Your task to perform on an android device: Search for the best rated wireless headphones on Amazon. Image 0: 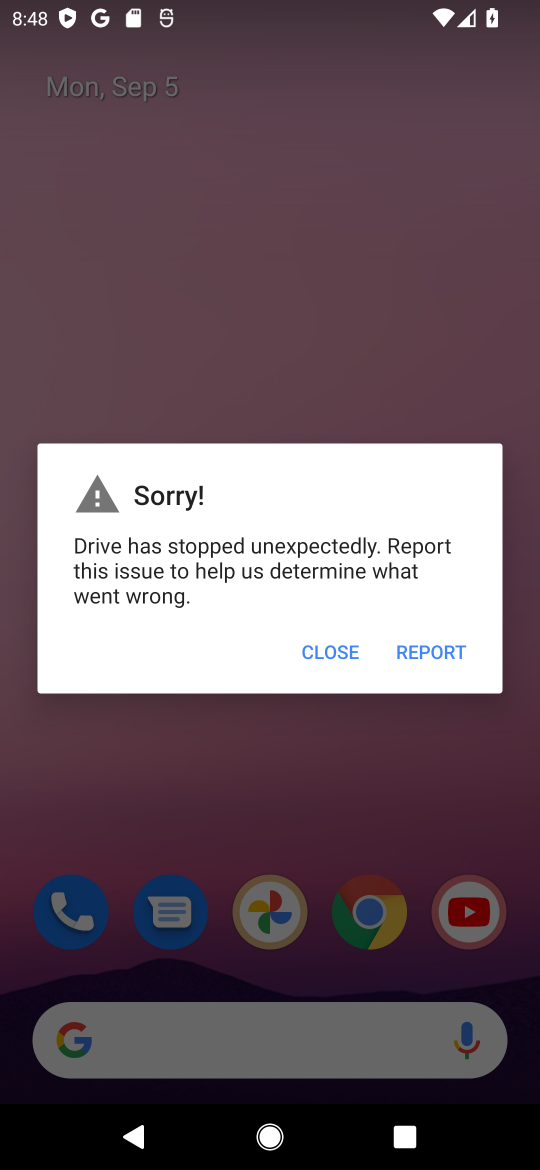
Step 0: press home button
Your task to perform on an android device: Search for the best rated wireless headphones on Amazon. Image 1: 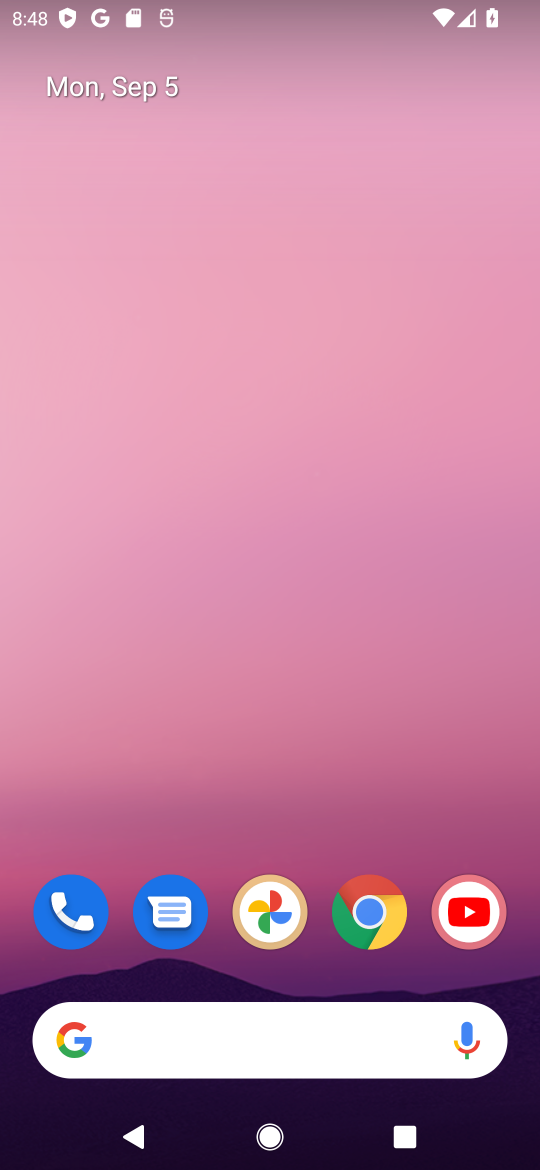
Step 1: click (377, 933)
Your task to perform on an android device: Search for the best rated wireless headphones on Amazon. Image 2: 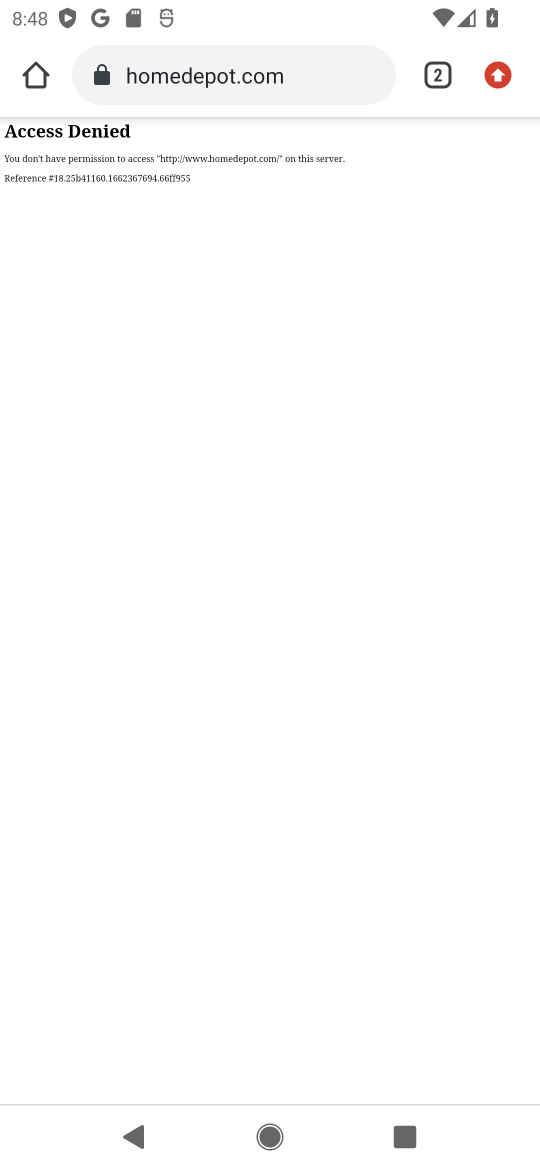
Step 2: click (430, 75)
Your task to perform on an android device: Search for the best rated wireless headphones on Amazon. Image 3: 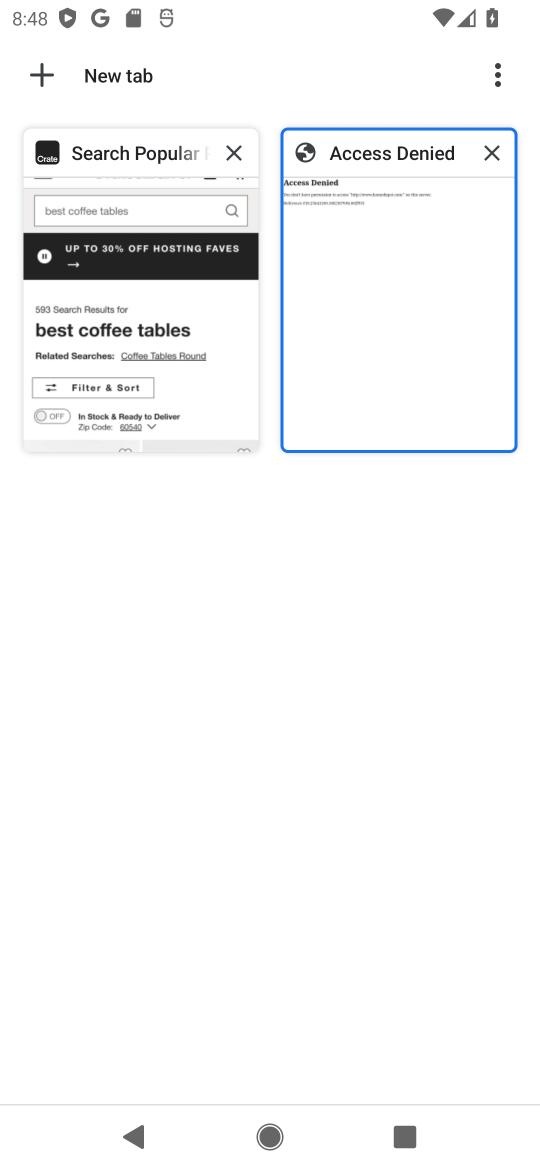
Step 3: click (237, 154)
Your task to perform on an android device: Search for the best rated wireless headphones on Amazon. Image 4: 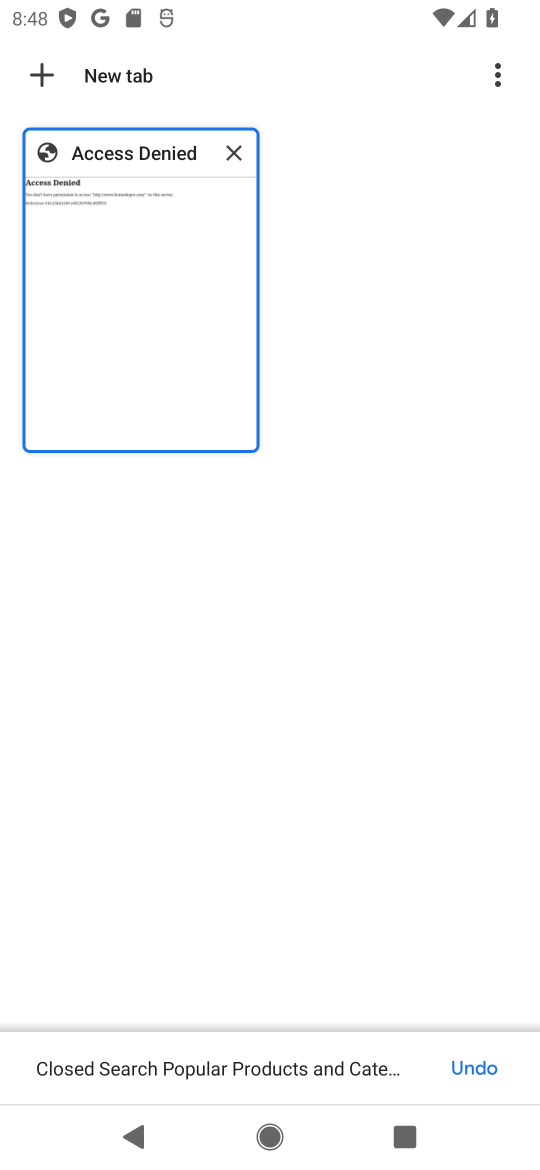
Step 4: click (237, 154)
Your task to perform on an android device: Search for the best rated wireless headphones on Amazon. Image 5: 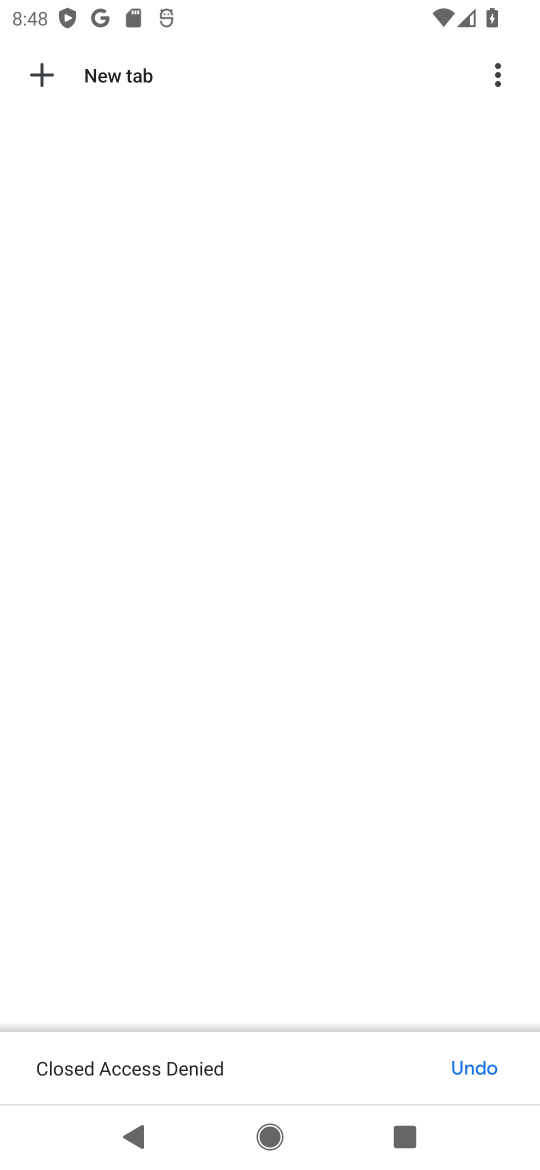
Step 5: click (41, 78)
Your task to perform on an android device: Search for the best rated wireless headphones on Amazon. Image 6: 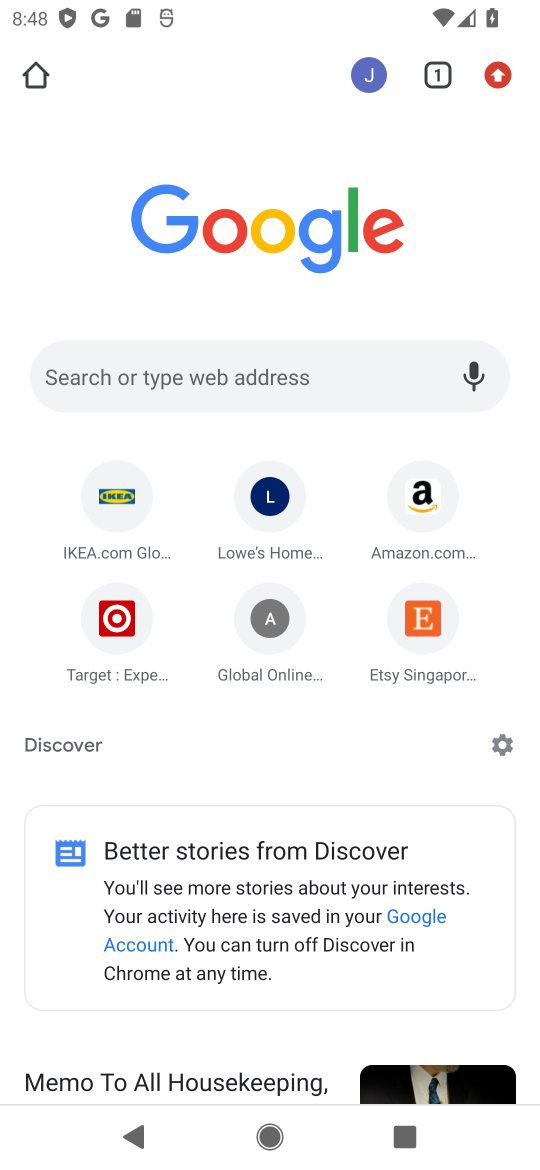
Step 6: click (200, 370)
Your task to perform on an android device: Search for the best rated wireless headphones on Amazon. Image 7: 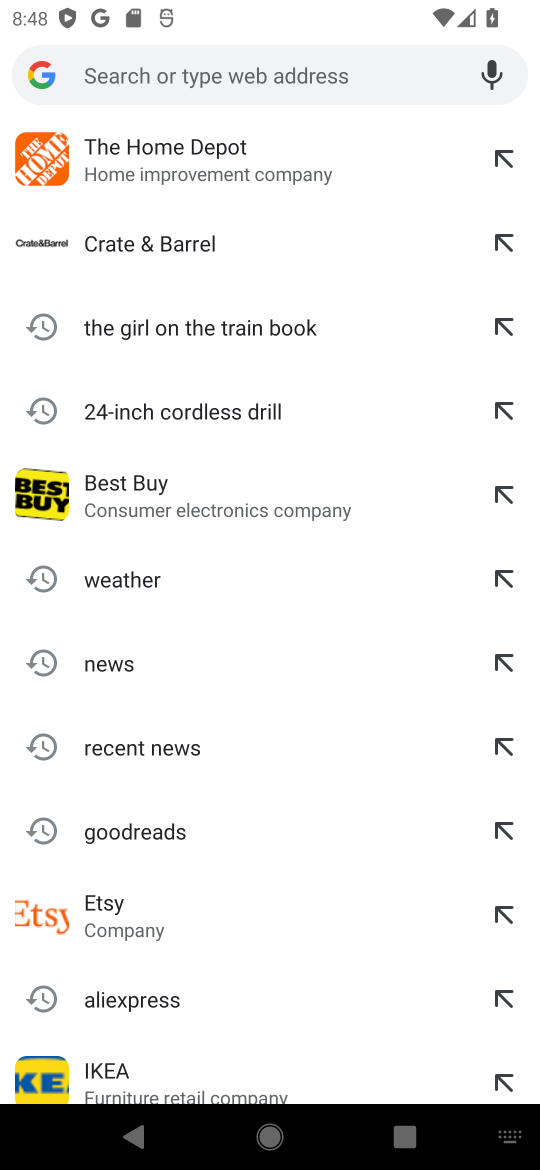
Step 7: type "amazon"
Your task to perform on an android device: Search for the best rated wireless headphones on Amazon. Image 8: 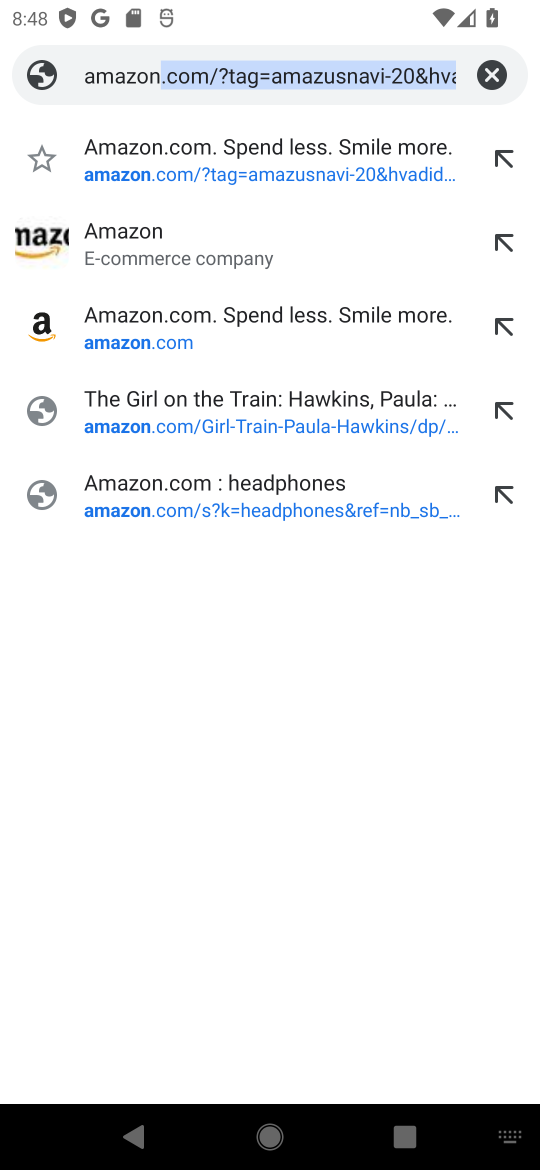
Step 8: press enter
Your task to perform on an android device: Search for the best rated wireless headphones on Amazon. Image 9: 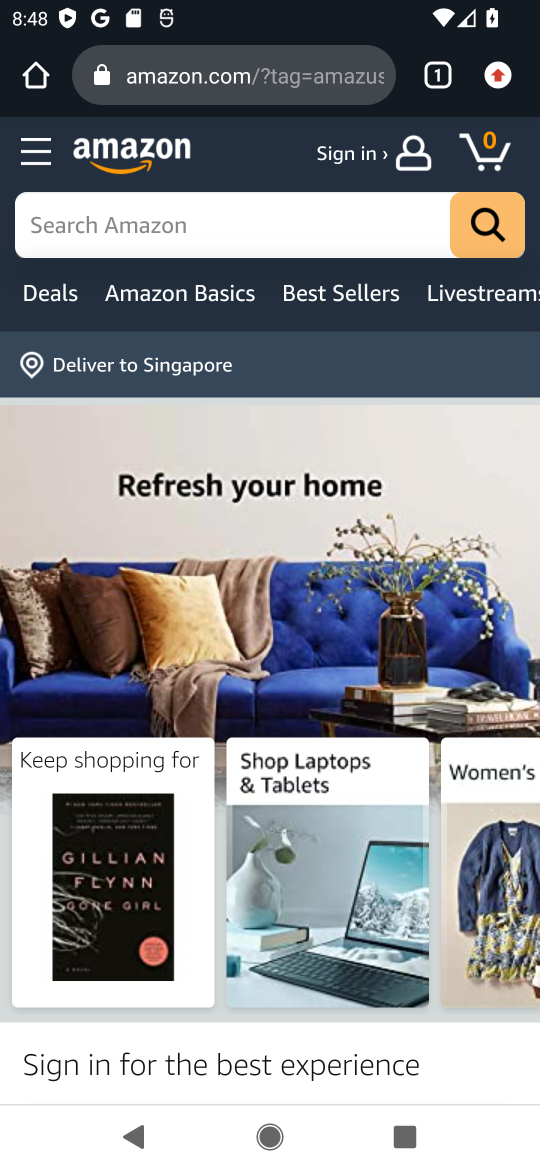
Step 9: click (214, 233)
Your task to perform on an android device: Search for the best rated wireless headphones on Amazon. Image 10: 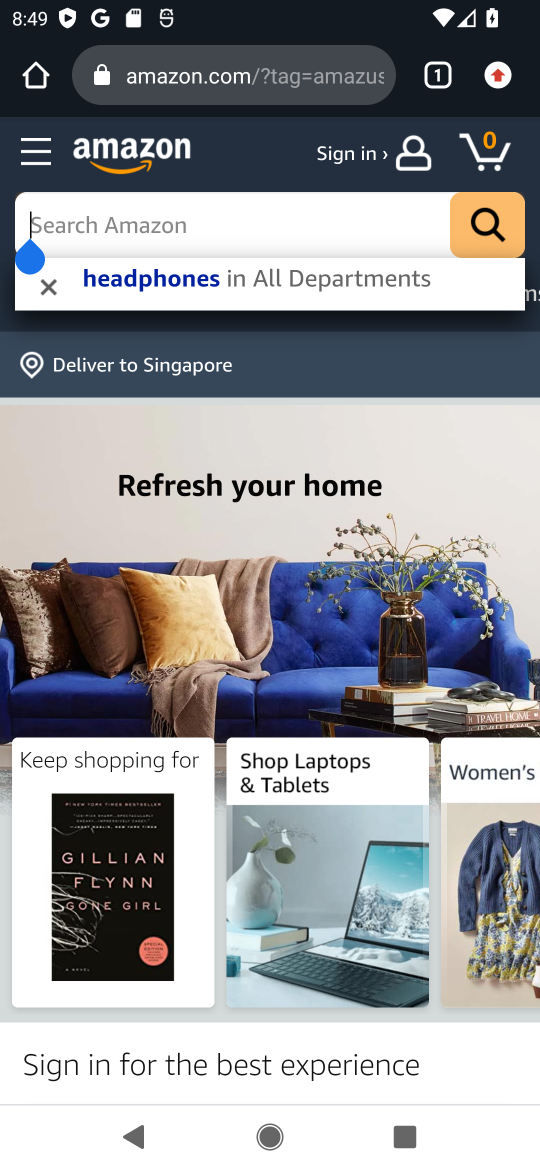
Step 10: type "wireless headphones"
Your task to perform on an android device: Search for the best rated wireless headphones on Amazon. Image 11: 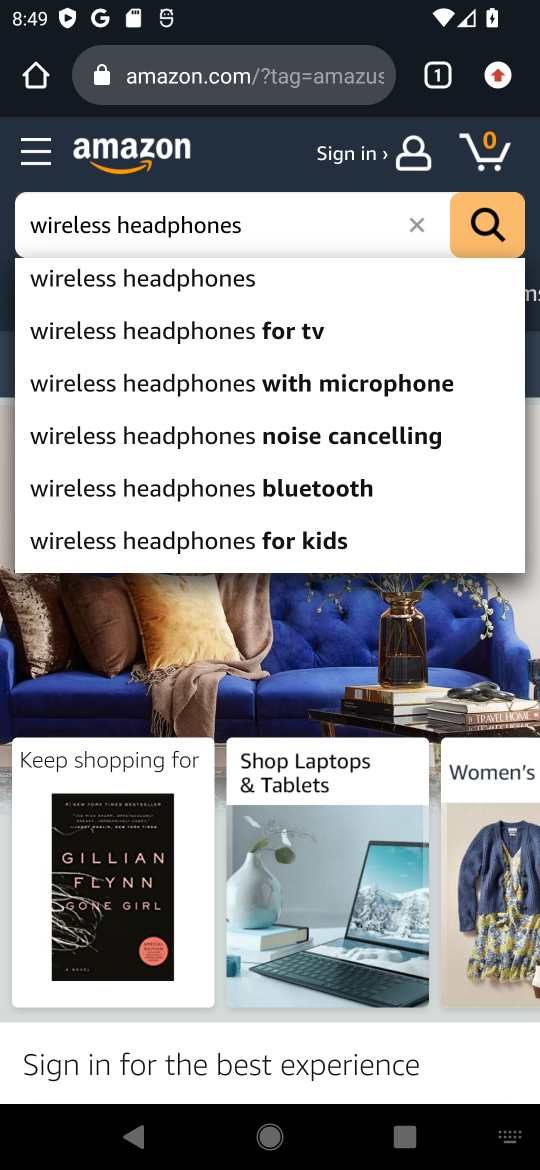
Step 11: press enter
Your task to perform on an android device: Search for the best rated wireless headphones on Amazon. Image 12: 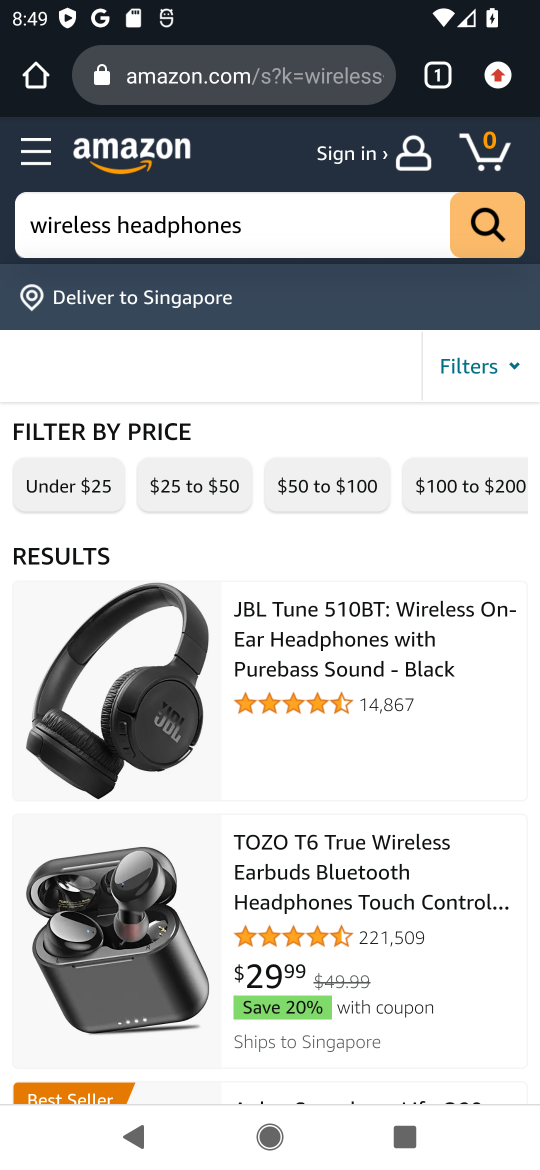
Step 12: click (481, 355)
Your task to perform on an android device: Search for the best rated wireless headphones on Amazon. Image 13: 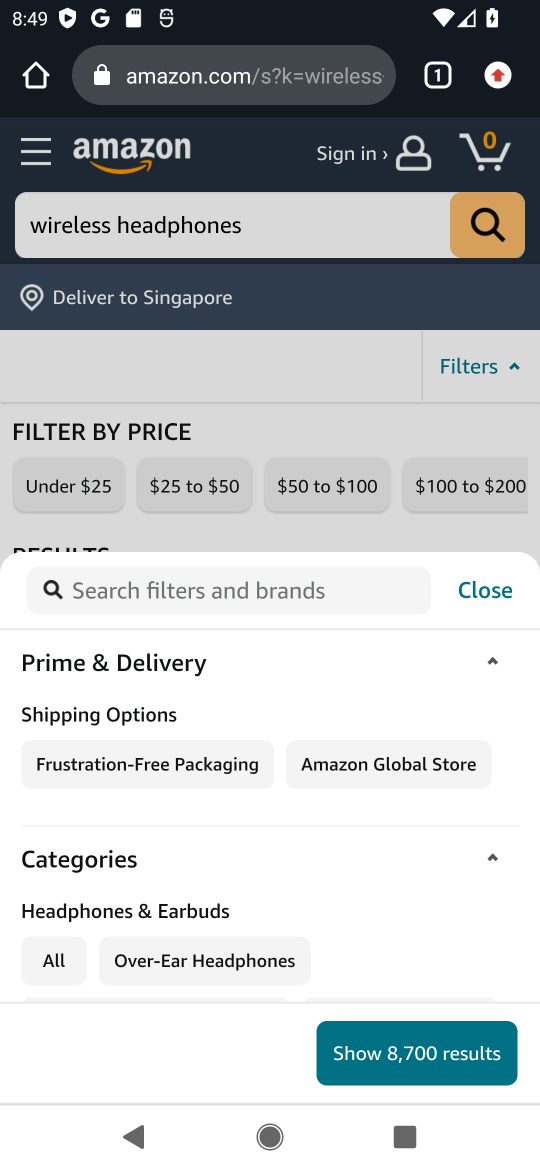
Step 13: drag from (401, 791) to (374, 545)
Your task to perform on an android device: Search for the best rated wireless headphones on Amazon. Image 14: 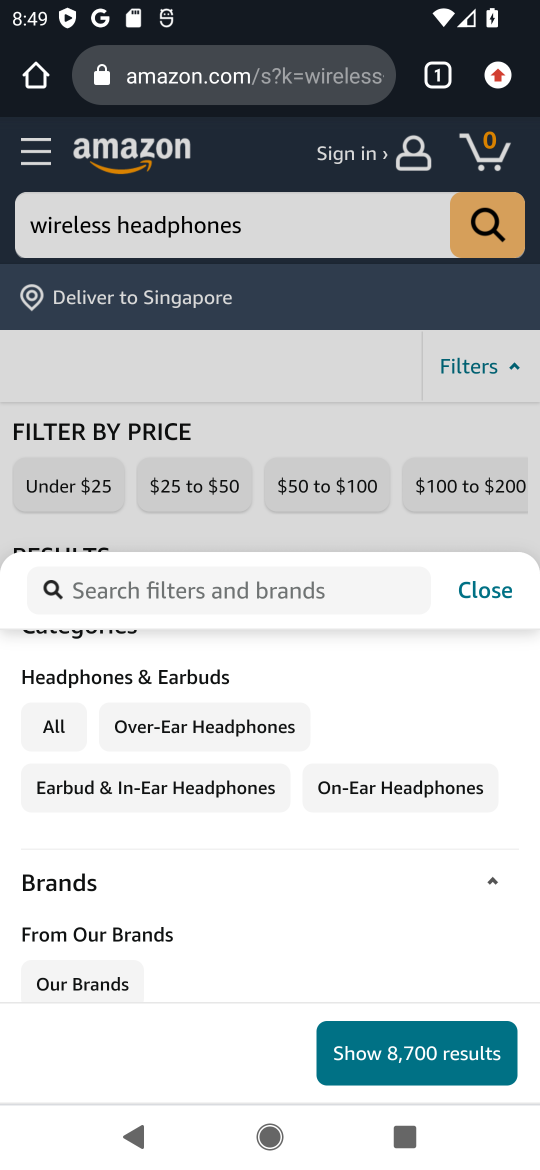
Step 14: drag from (371, 944) to (368, 545)
Your task to perform on an android device: Search for the best rated wireless headphones on Amazon. Image 15: 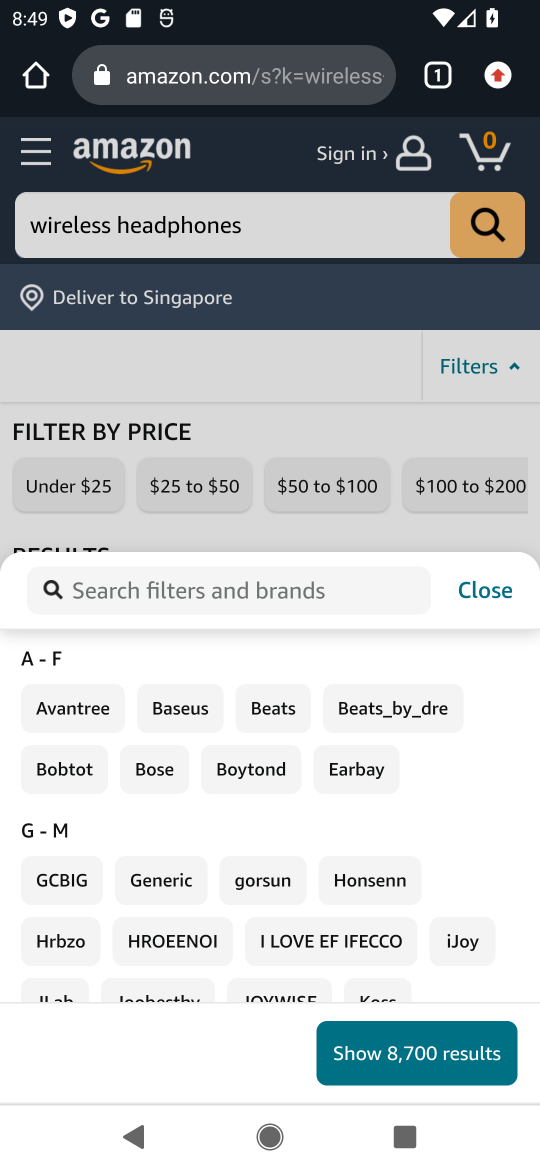
Step 15: drag from (416, 810) to (416, 608)
Your task to perform on an android device: Search for the best rated wireless headphones on Amazon. Image 16: 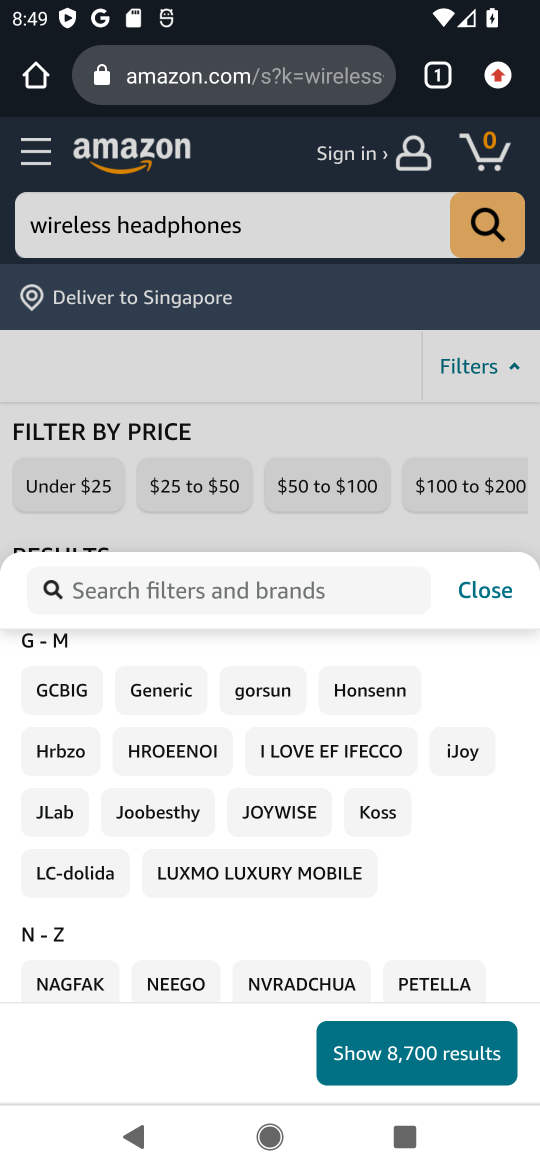
Step 16: drag from (468, 923) to (460, 505)
Your task to perform on an android device: Search for the best rated wireless headphones on Amazon. Image 17: 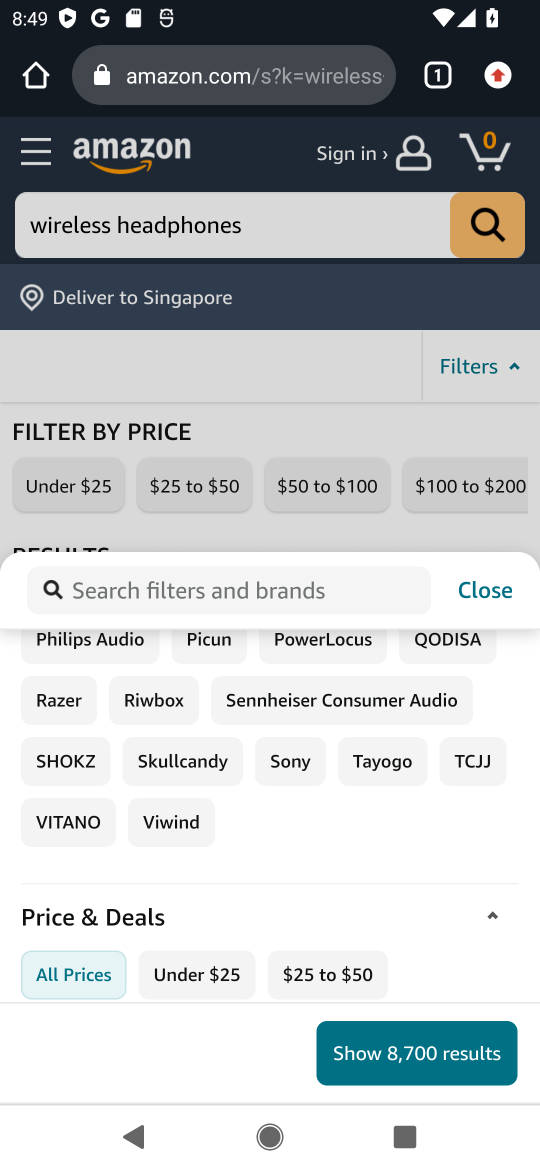
Step 17: drag from (410, 888) to (416, 652)
Your task to perform on an android device: Search for the best rated wireless headphones on Amazon. Image 18: 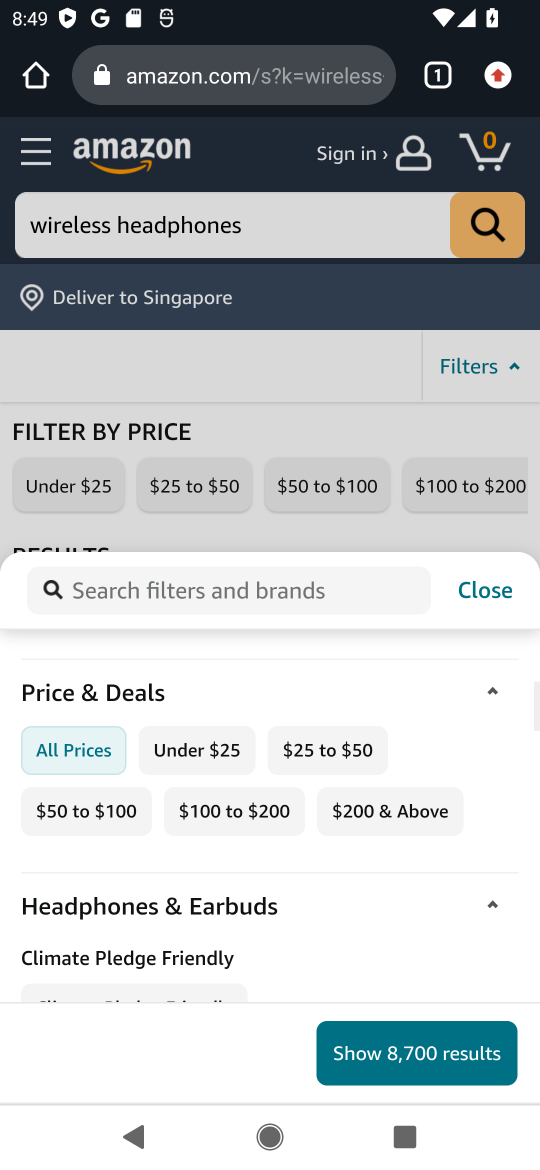
Step 18: drag from (443, 904) to (443, 607)
Your task to perform on an android device: Search for the best rated wireless headphones on Amazon. Image 19: 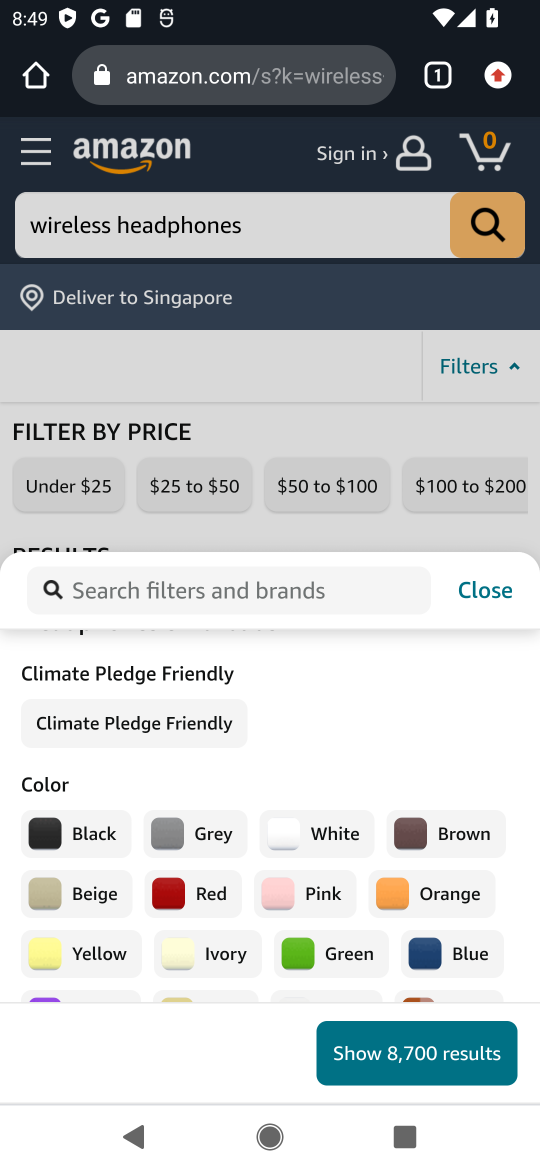
Step 19: drag from (413, 925) to (402, 618)
Your task to perform on an android device: Search for the best rated wireless headphones on Amazon. Image 20: 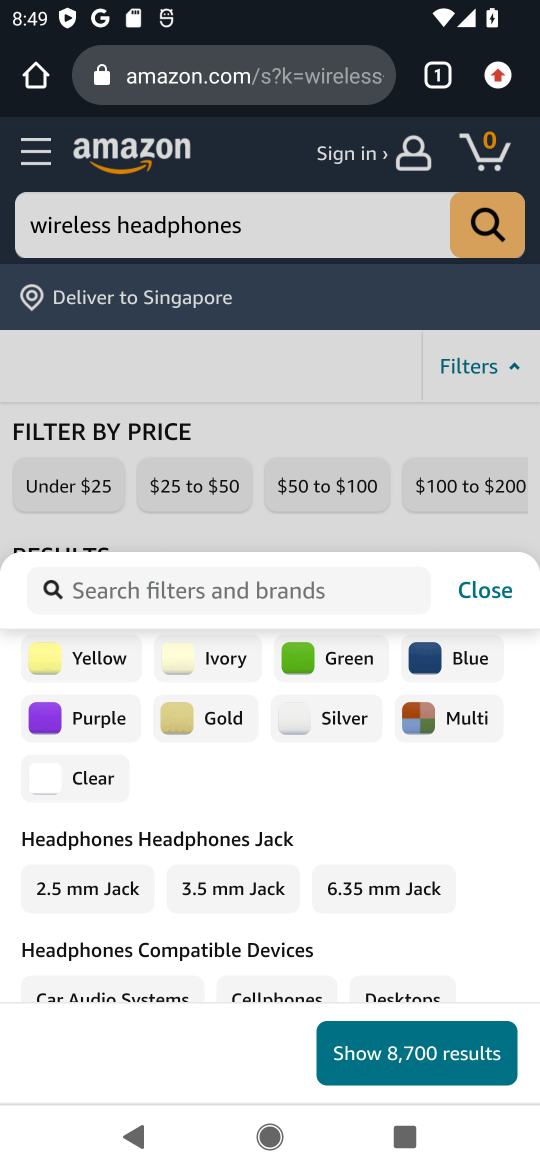
Step 20: drag from (352, 711) to (361, 590)
Your task to perform on an android device: Search for the best rated wireless headphones on Amazon. Image 21: 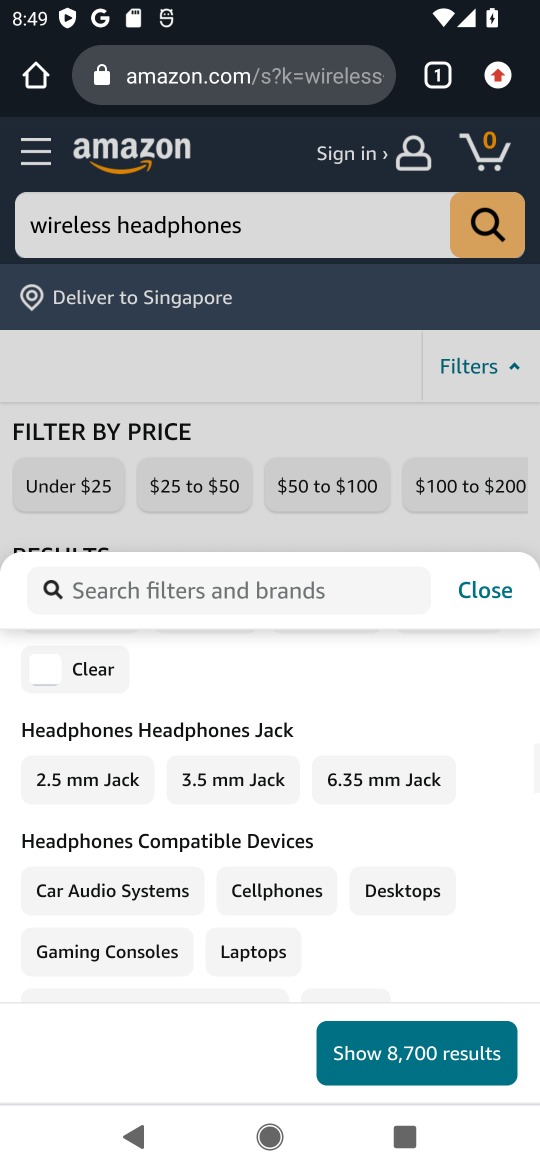
Step 21: drag from (369, 942) to (358, 664)
Your task to perform on an android device: Search for the best rated wireless headphones on Amazon. Image 22: 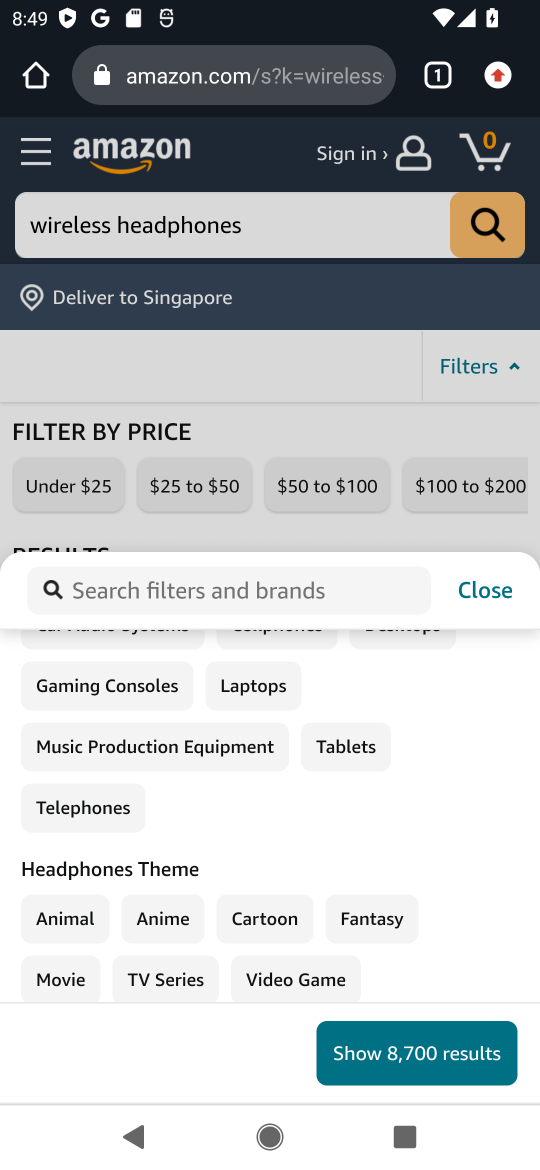
Step 22: drag from (372, 857) to (378, 646)
Your task to perform on an android device: Search for the best rated wireless headphones on Amazon. Image 23: 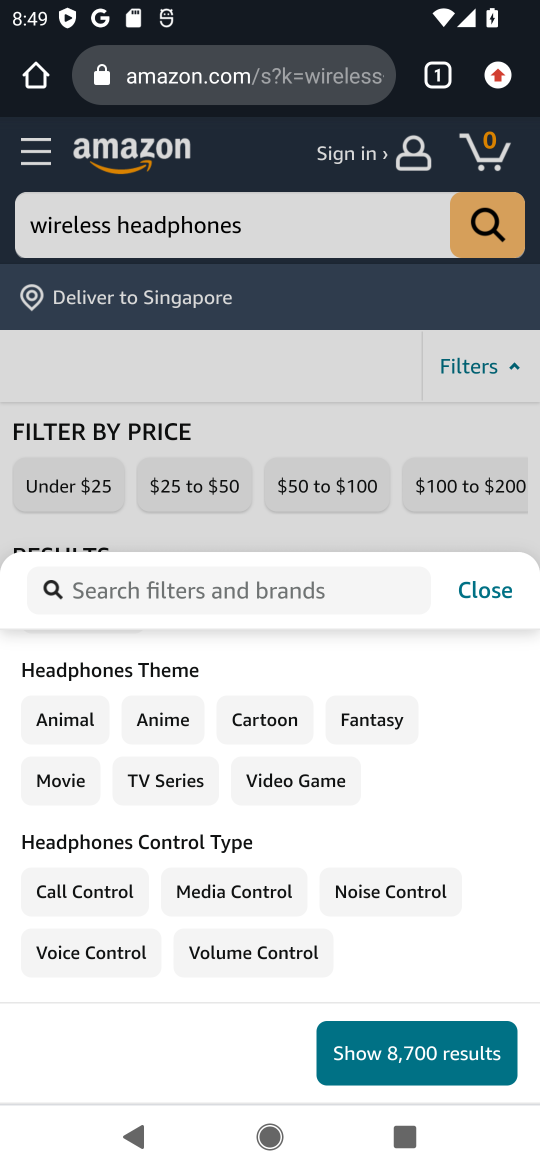
Step 23: drag from (368, 958) to (381, 671)
Your task to perform on an android device: Search for the best rated wireless headphones on Amazon. Image 24: 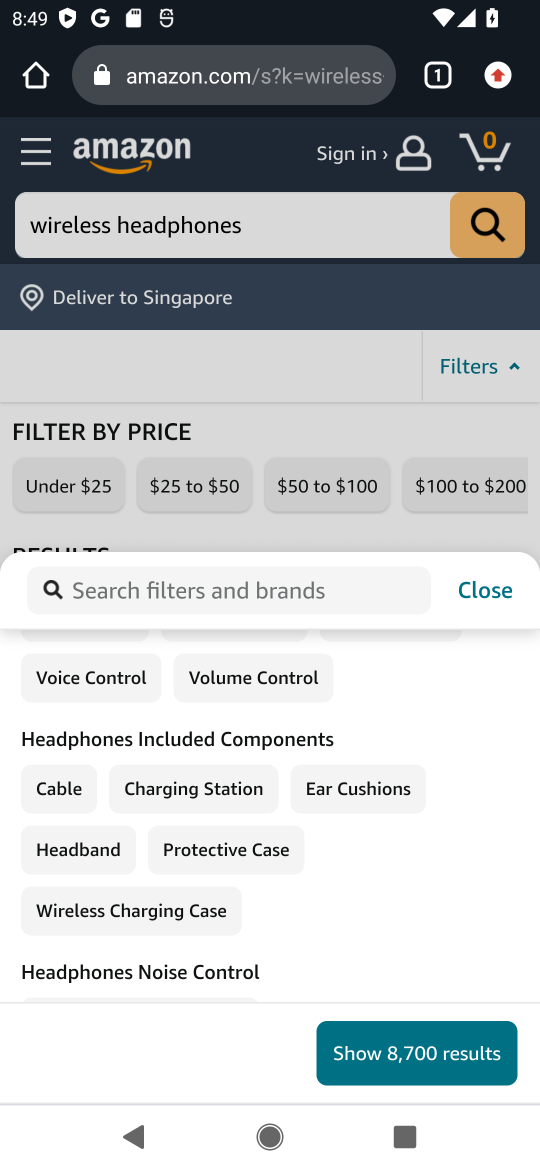
Step 24: drag from (372, 956) to (372, 693)
Your task to perform on an android device: Search for the best rated wireless headphones on Amazon. Image 25: 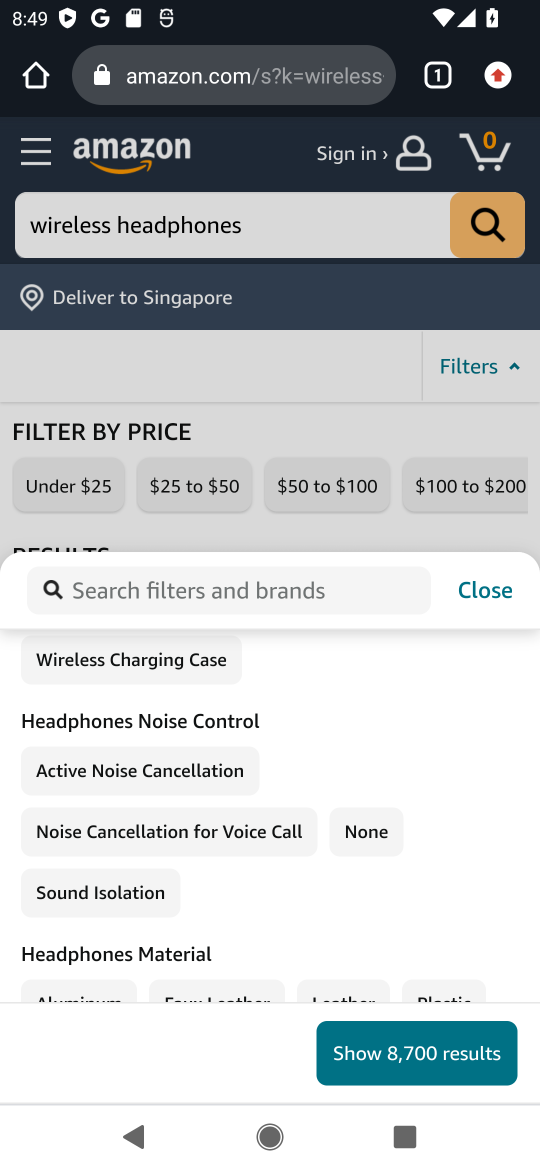
Step 25: drag from (382, 802) to (385, 642)
Your task to perform on an android device: Search for the best rated wireless headphones on Amazon. Image 26: 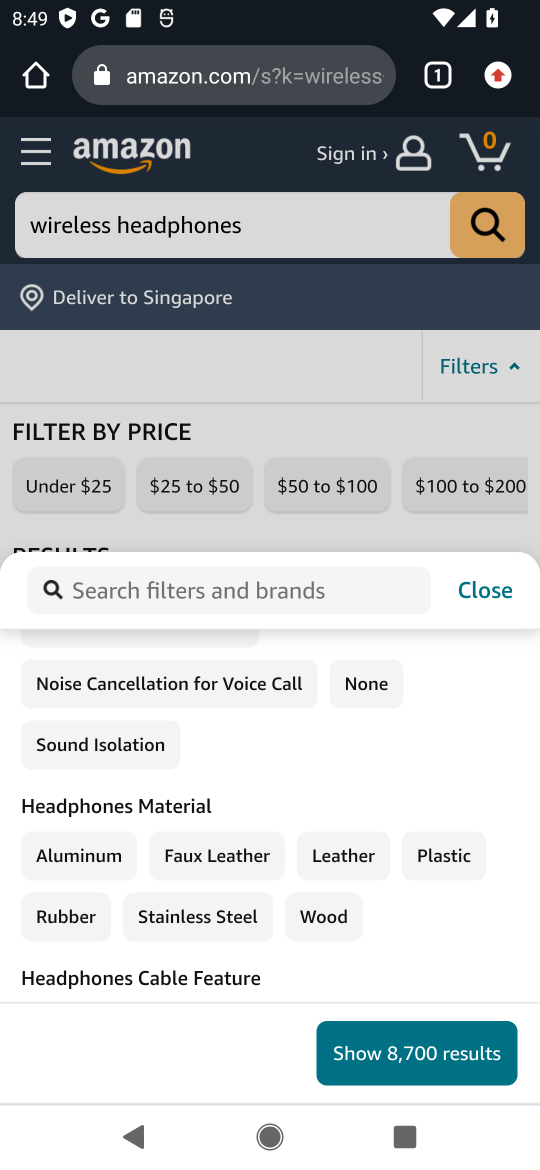
Step 26: drag from (390, 949) to (403, 723)
Your task to perform on an android device: Search for the best rated wireless headphones on Amazon. Image 27: 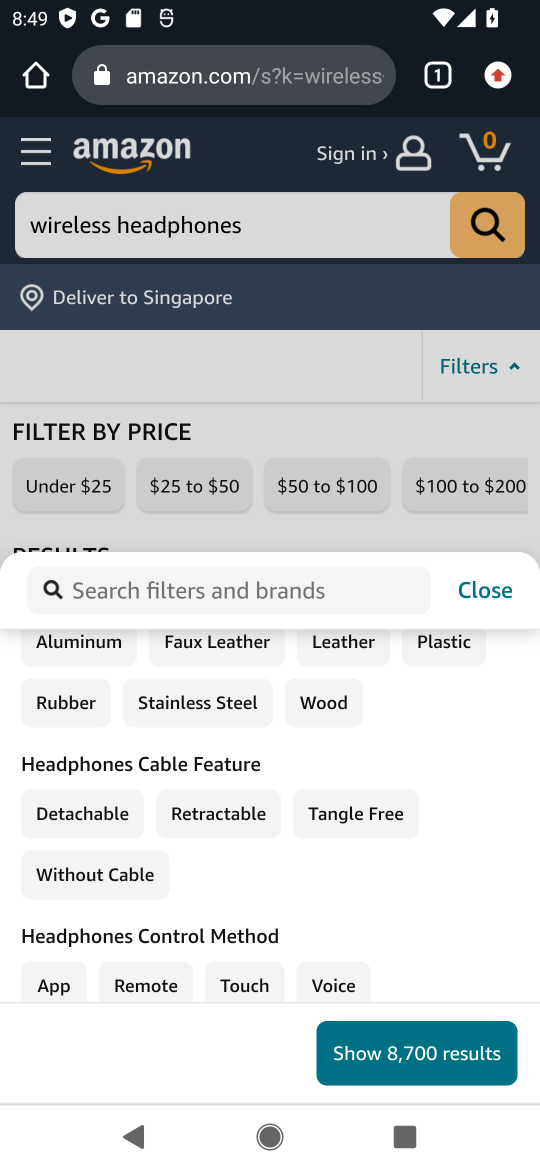
Step 27: drag from (416, 927) to (440, 646)
Your task to perform on an android device: Search for the best rated wireless headphones on Amazon. Image 28: 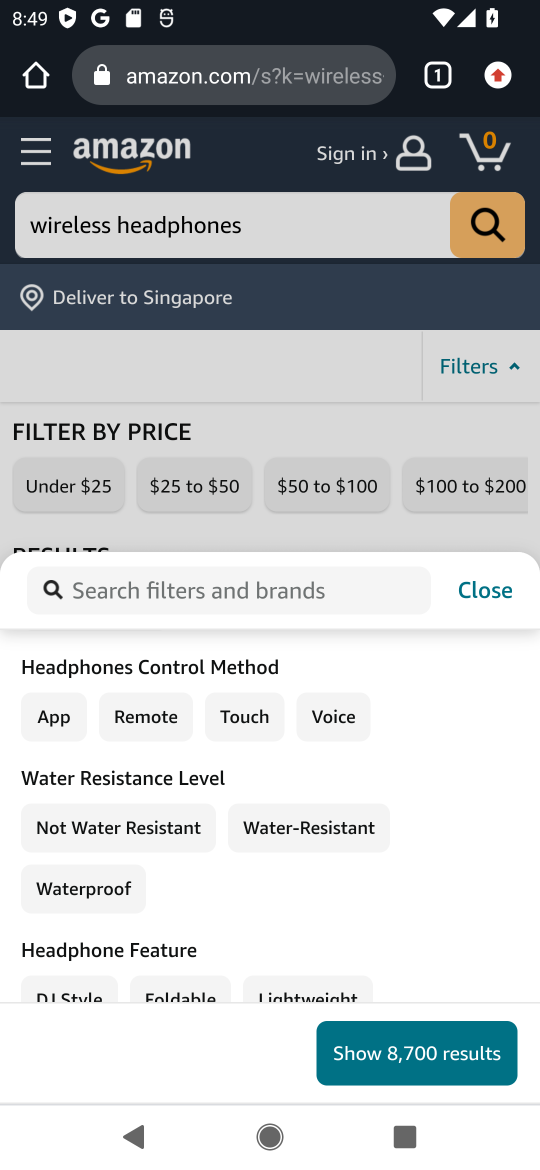
Step 28: drag from (409, 919) to (437, 709)
Your task to perform on an android device: Search for the best rated wireless headphones on Amazon. Image 29: 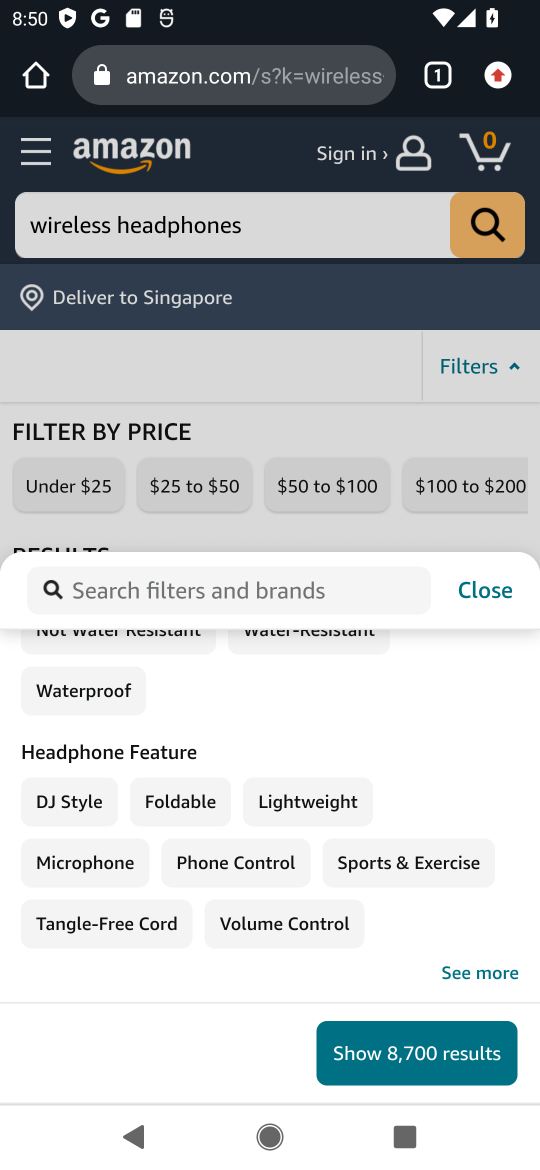
Step 29: drag from (408, 927) to (441, 622)
Your task to perform on an android device: Search for the best rated wireless headphones on Amazon. Image 30: 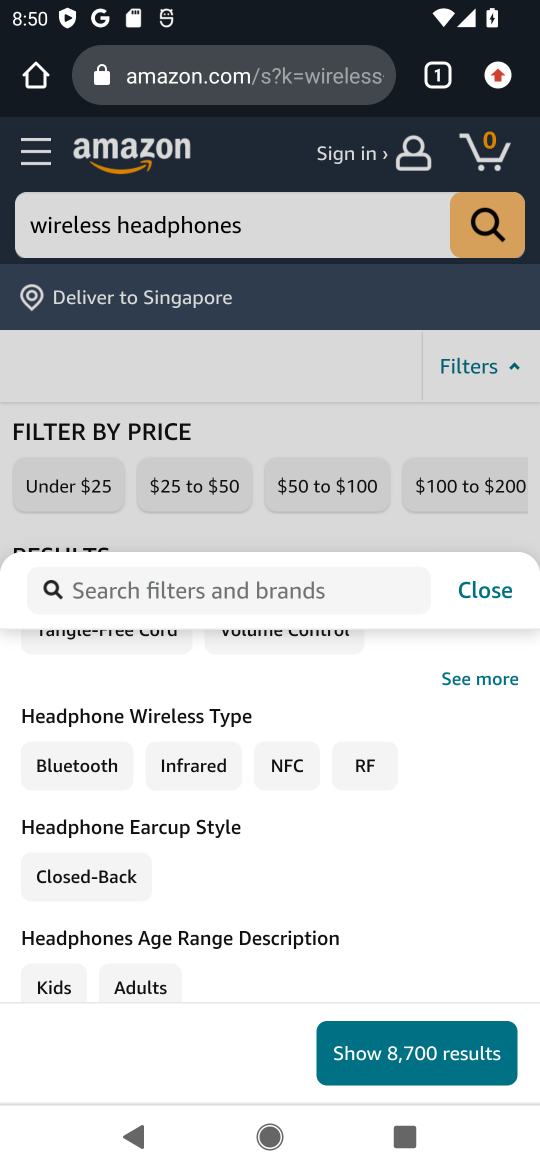
Step 30: drag from (359, 892) to (436, 609)
Your task to perform on an android device: Search for the best rated wireless headphones on Amazon. Image 31: 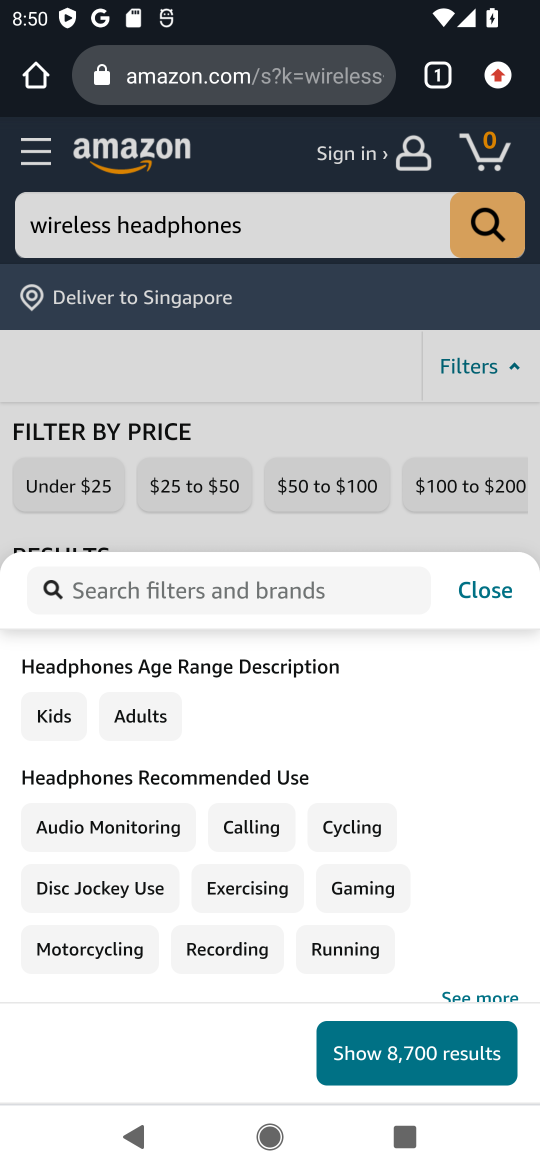
Step 31: drag from (444, 972) to (452, 615)
Your task to perform on an android device: Search for the best rated wireless headphones on Amazon. Image 32: 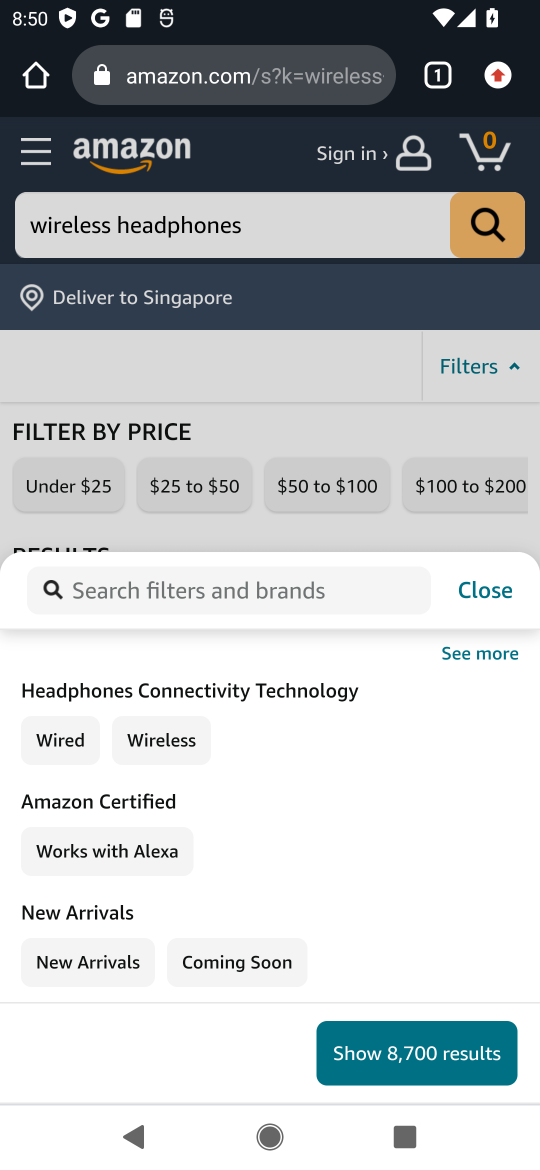
Step 32: drag from (420, 902) to (423, 628)
Your task to perform on an android device: Search for the best rated wireless headphones on Amazon. Image 33: 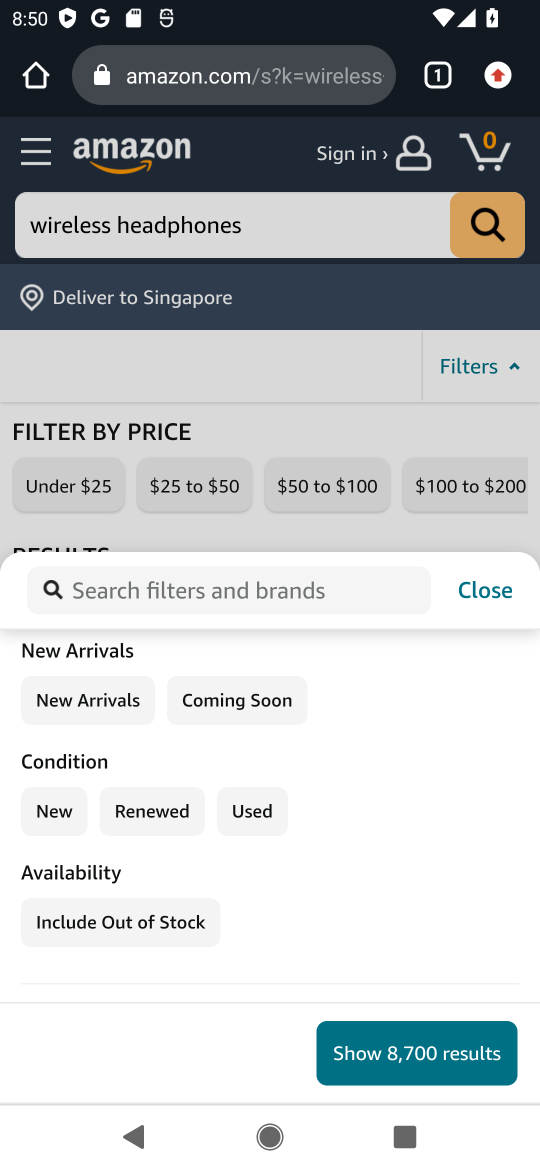
Step 33: drag from (362, 964) to (396, 639)
Your task to perform on an android device: Search for the best rated wireless headphones on Amazon. Image 34: 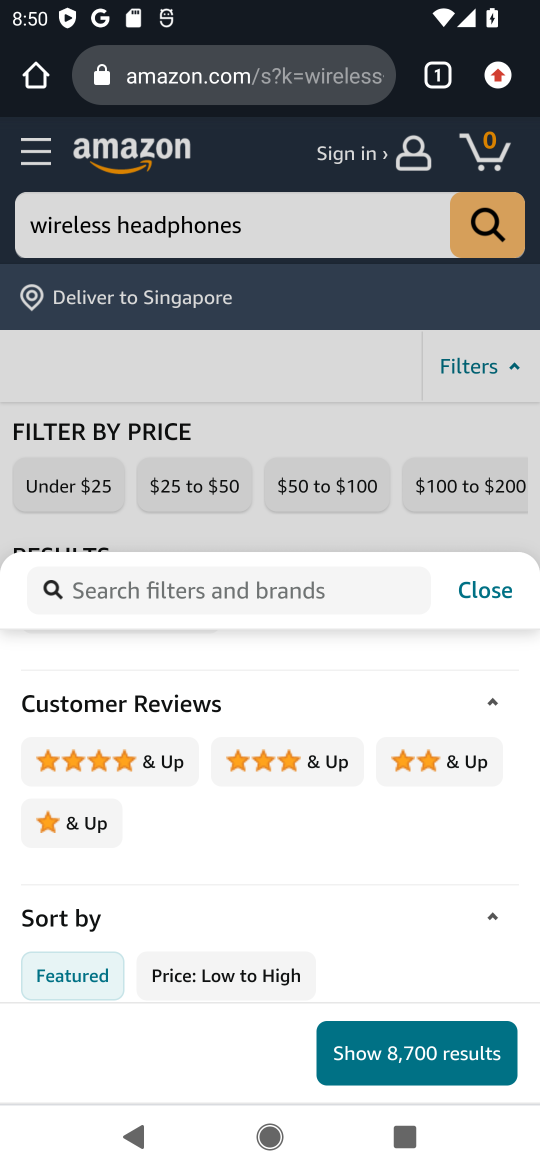
Step 34: click (122, 746)
Your task to perform on an android device: Search for the best rated wireless headphones on Amazon. Image 35: 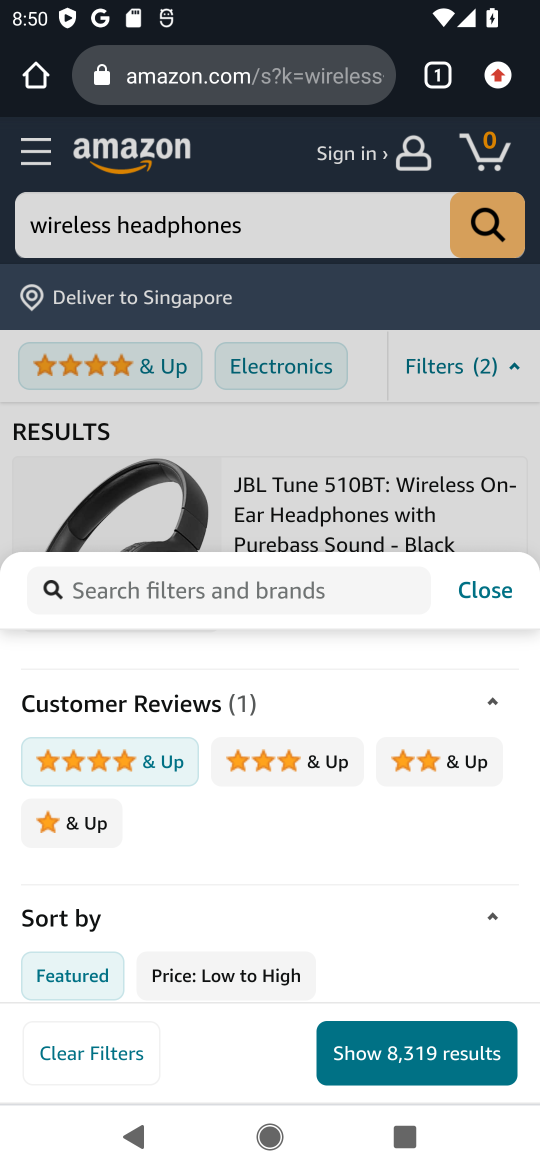
Step 35: click (404, 1060)
Your task to perform on an android device: Search for the best rated wireless headphones on Amazon. Image 36: 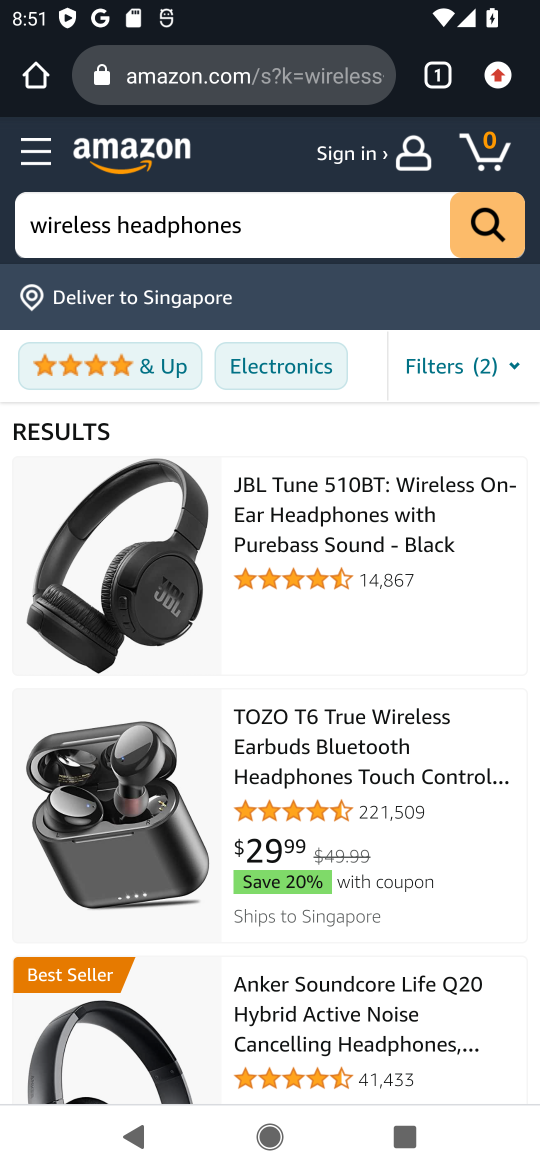
Step 36: drag from (379, 962) to (373, 88)
Your task to perform on an android device: Search for the best rated wireless headphones on Amazon. Image 37: 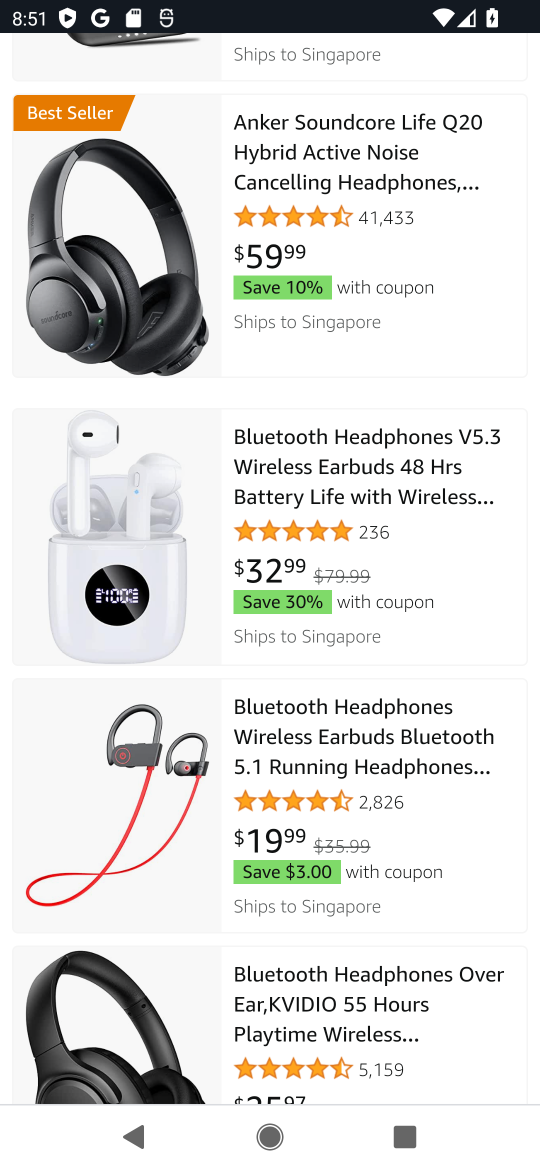
Step 37: drag from (335, 926) to (326, 503)
Your task to perform on an android device: Search for the best rated wireless headphones on Amazon. Image 38: 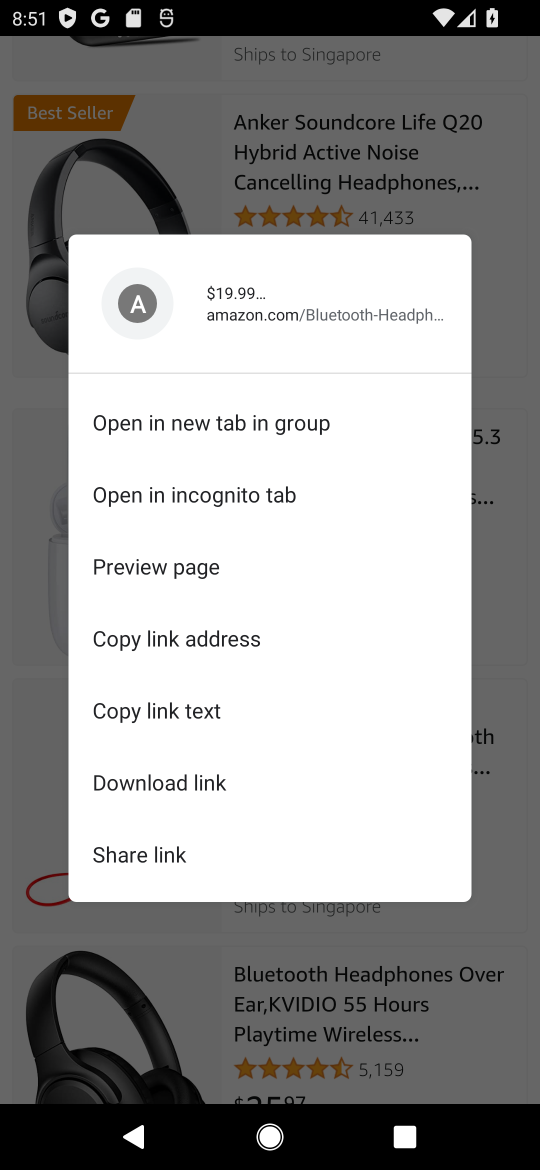
Step 38: click (510, 621)
Your task to perform on an android device: Search for the best rated wireless headphones on Amazon. Image 39: 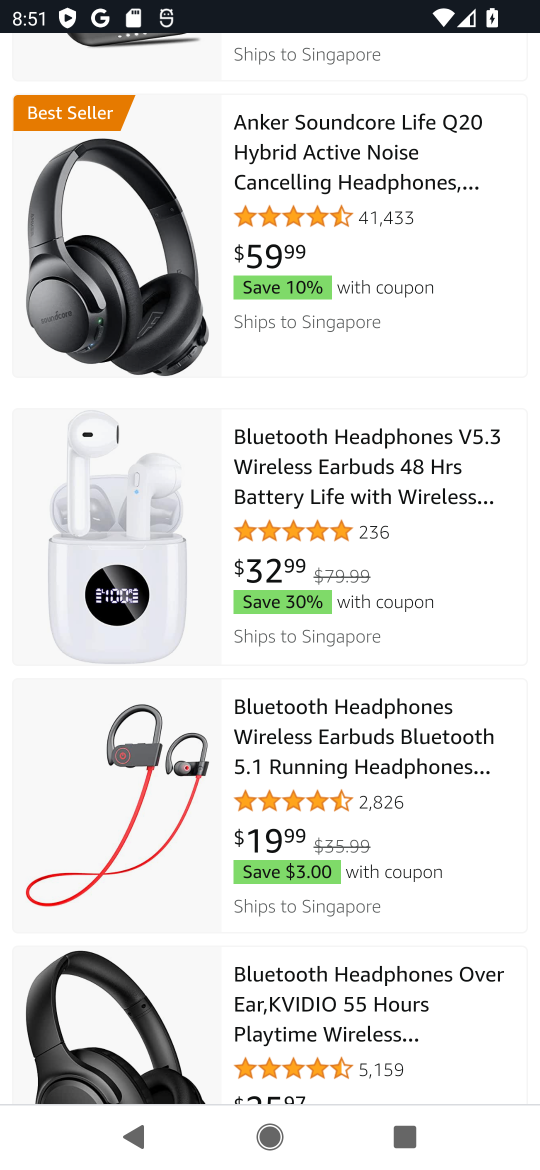
Step 39: task complete